Your task to perform on an android device: find photos in the google photos app Image 0: 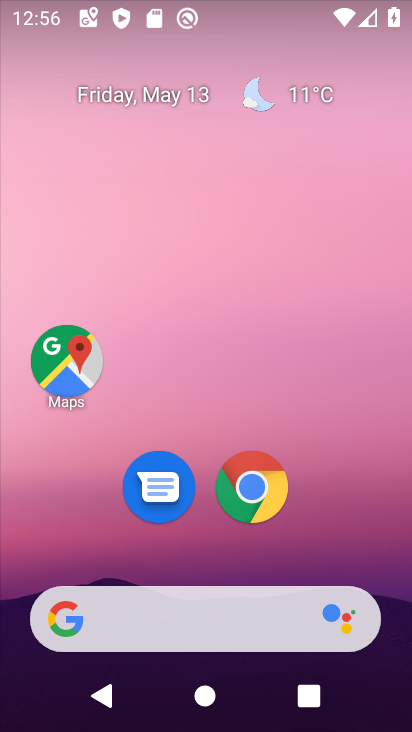
Step 0: drag from (351, 521) to (410, 263)
Your task to perform on an android device: find photos in the google photos app Image 1: 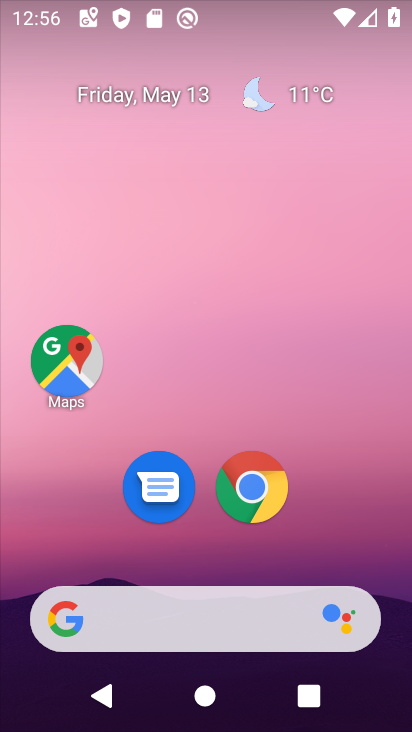
Step 1: drag from (286, 489) to (307, 116)
Your task to perform on an android device: find photos in the google photos app Image 2: 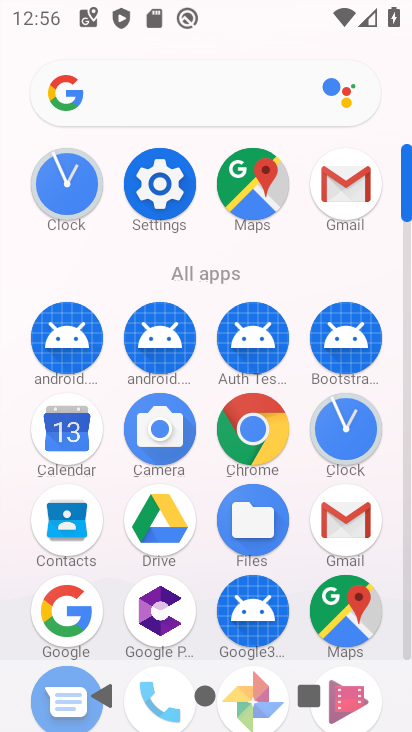
Step 2: drag from (304, 538) to (305, 291)
Your task to perform on an android device: find photos in the google photos app Image 3: 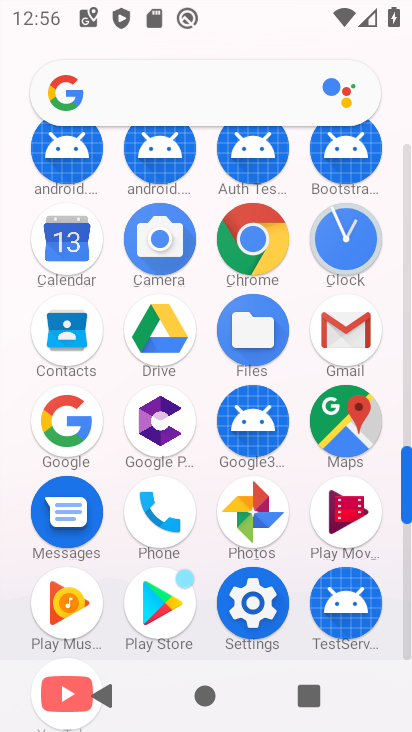
Step 3: click (275, 520)
Your task to perform on an android device: find photos in the google photos app Image 4: 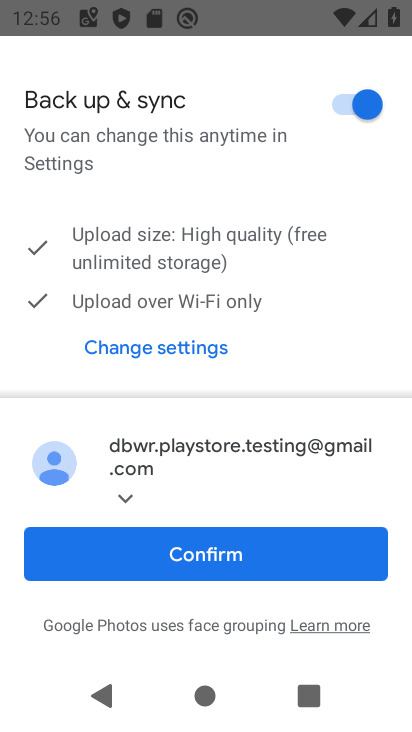
Step 4: click (297, 534)
Your task to perform on an android device: find photos in the google photos app Image 5: 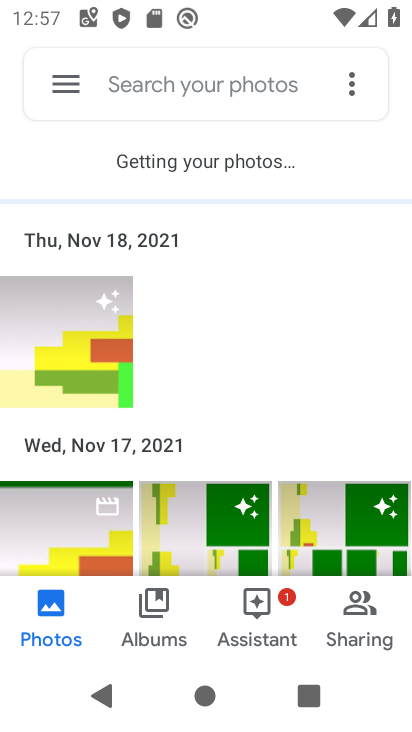
Step 5: task complete